Your task to perform on an android device: star an email in the gmail app Image 0: 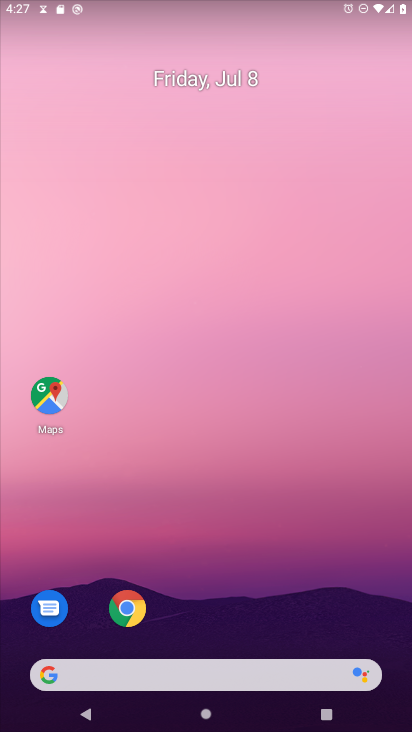
Step 0: drag from (277, 686) to (212, 6)
Your task to perform on an android device: star an email in the gmail app Image 1: 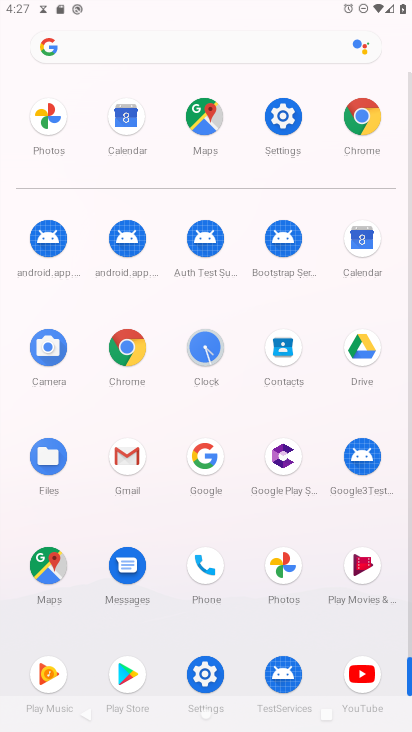
Step 1: click (124, 449)
Your task to perform on an android device: star an email in the gmail app Image 2: 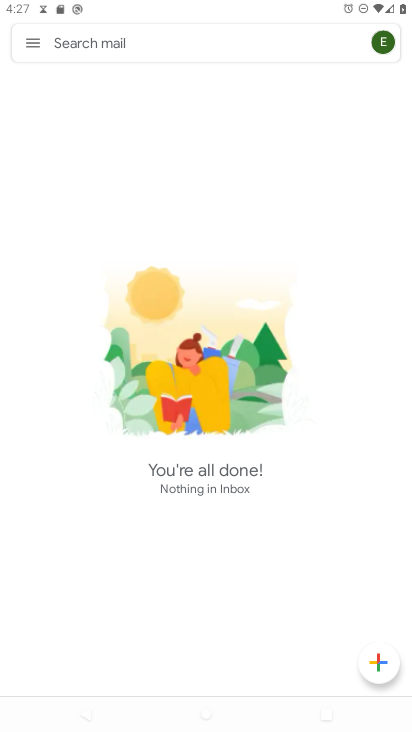
Step 2: click (35, 42)
Your task to perform on an android device: star an email in the gmail app Image 3: 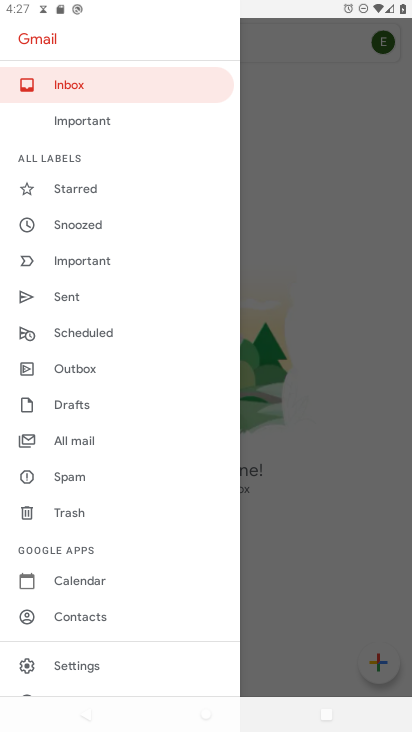
Step 3: click (86, 192)
Your task to perform on an android device: star an email in the gmail app Image 4: 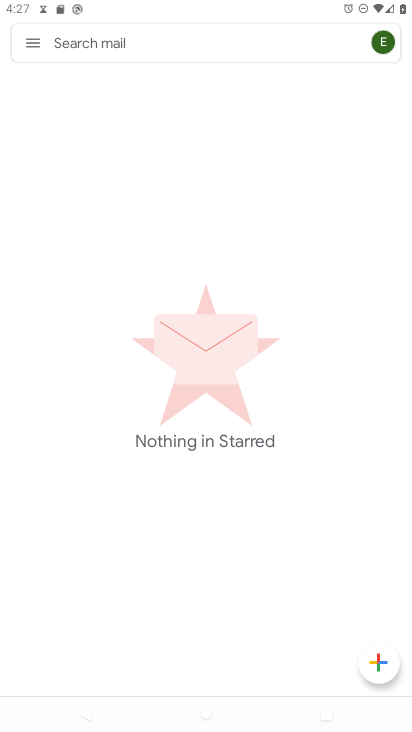
Step 4: task complete